Your task to perform on an android device: Go to settings Image 0: 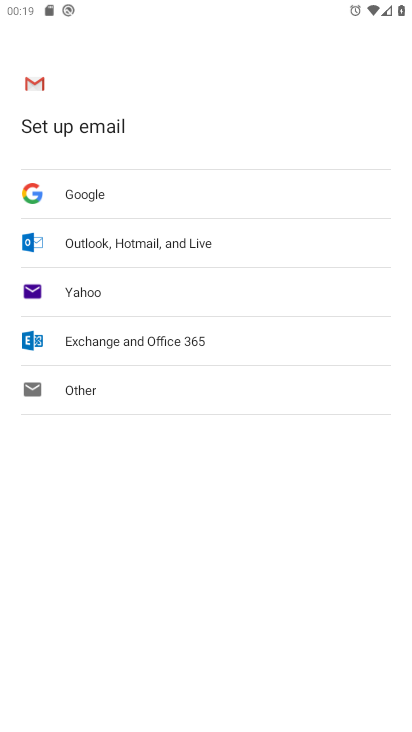
Step 0: press home button
Your task to perform on an android device: Go to settings Image 1: 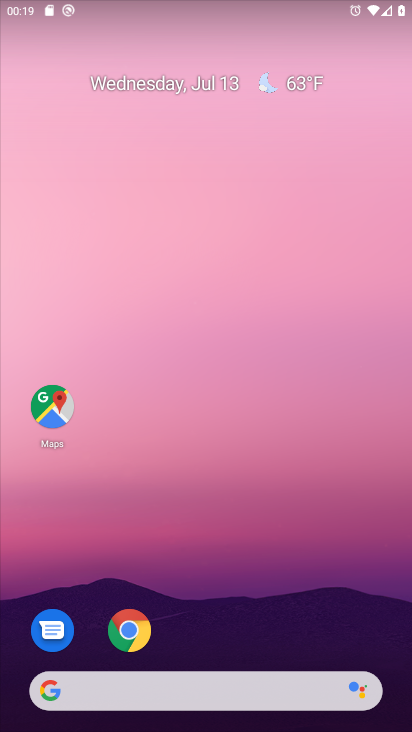
Step 1: drag from (182, 678) to (113, 4)
Your task to perform on an android device: Go to settings Image 2: 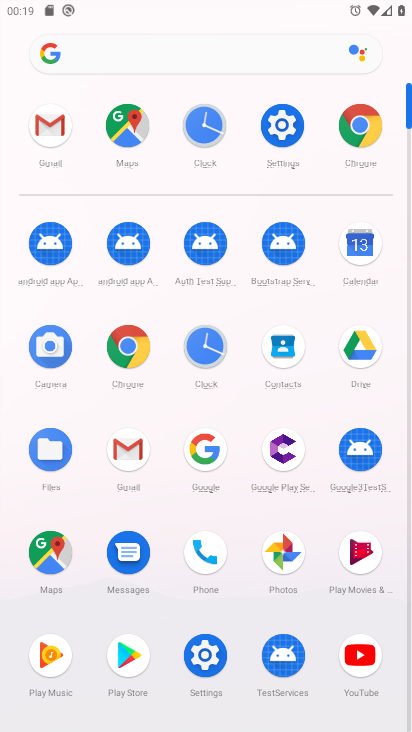
Step 2: click (216, 661)
Your task to perform on an android device: Go to settings Image 3: 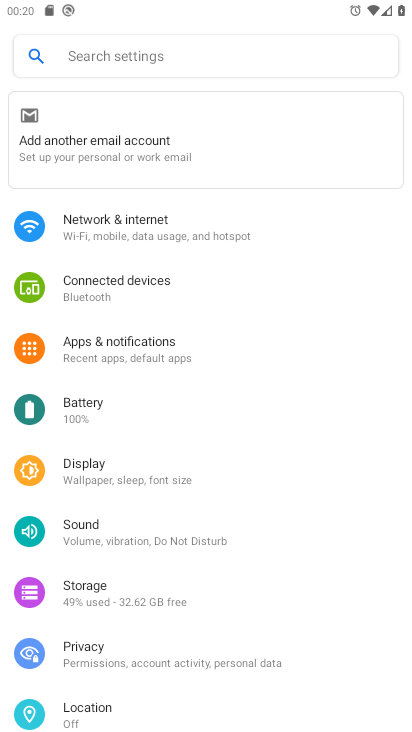
Step 3: task complete